Your task to perform on an android device: Is it going to rain today? Image 0: 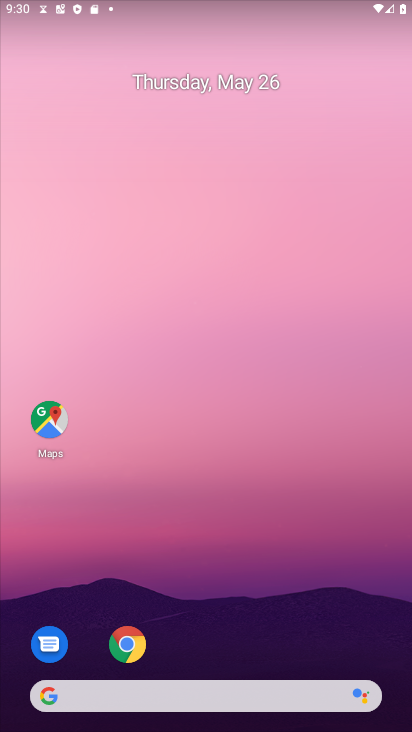
Step 0: drag from (232, 650) to (255, 63)
Your task to perform on an android device: Is it going to rain today? Image 1: 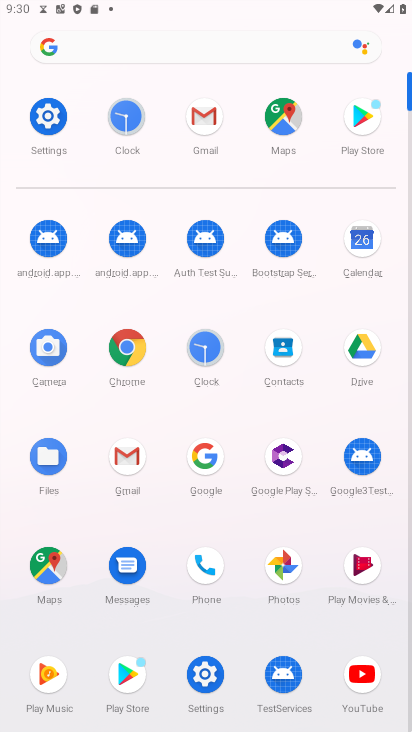
Step 1: click (137, 44)
Your task to perform on an android device: Is it going to rain today? Image 2: 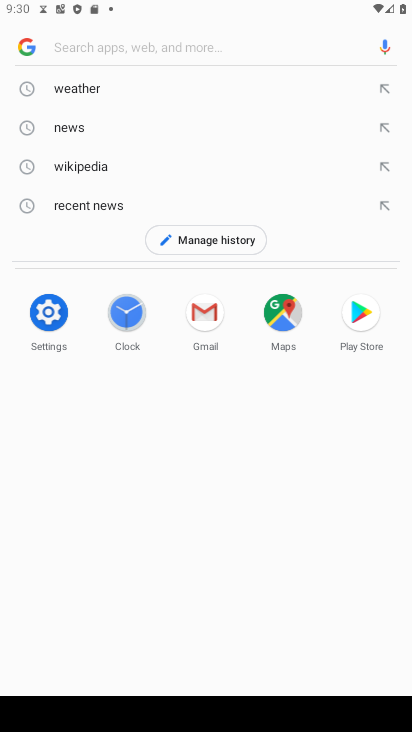
Step 2: click (128, 88)
Your task to perform on an android device: Is it going to rain today? Image 3: 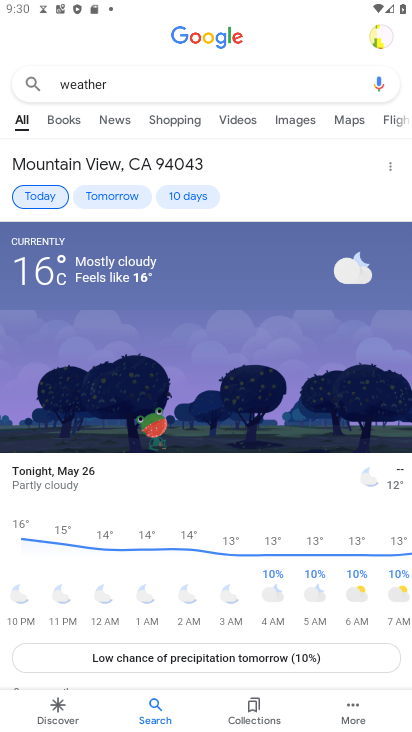
Step 3: task complete